Your task to perform on an android device: What's on my calendar tomorrow? Image 0: 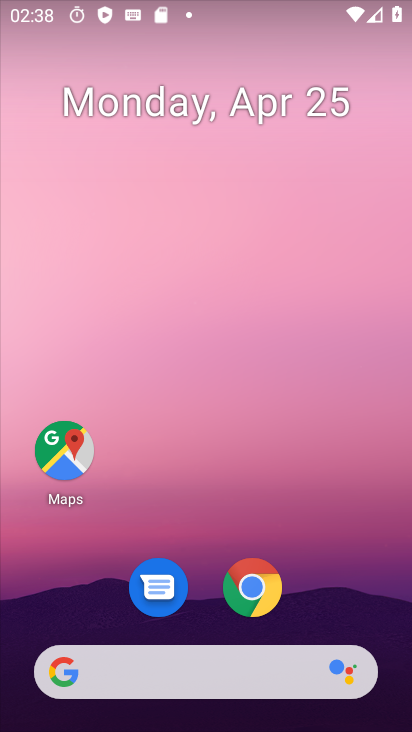
Step 0: drag from (338, 530) to (334, 106)
Your task to perform on an android device: What's on my calendar tomorrow? Image 1: 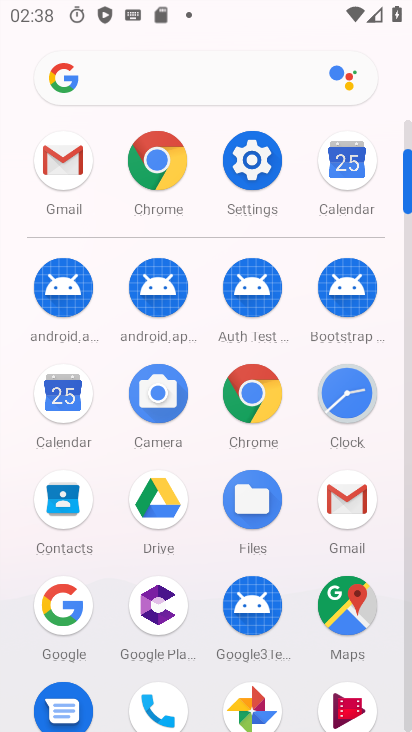
Step 1: click (59, 401)
Your task to perform on an android device: What's on my calendar tomorrow? Image 2: 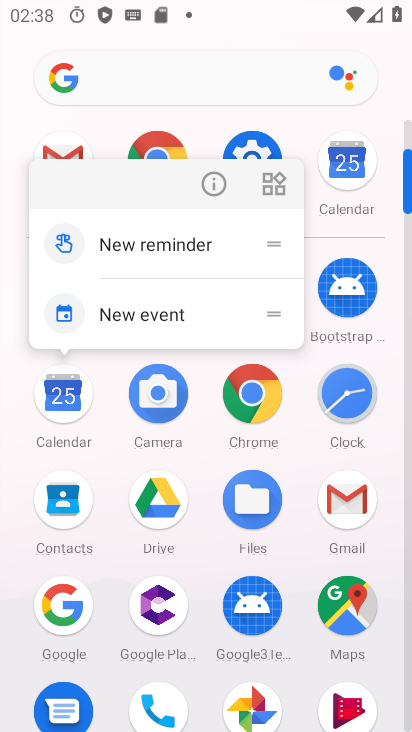
Step 2: click (61, 398)
Your task to perform on an android device: What's on my calendar tomorrow? Image 3: 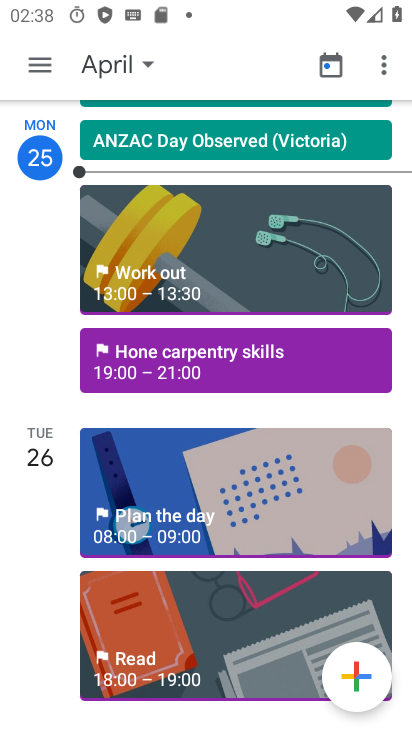
Step 3: click (386, 57)
Your task to perform on an android device: What's on my calendar tomorrow? Image 4: 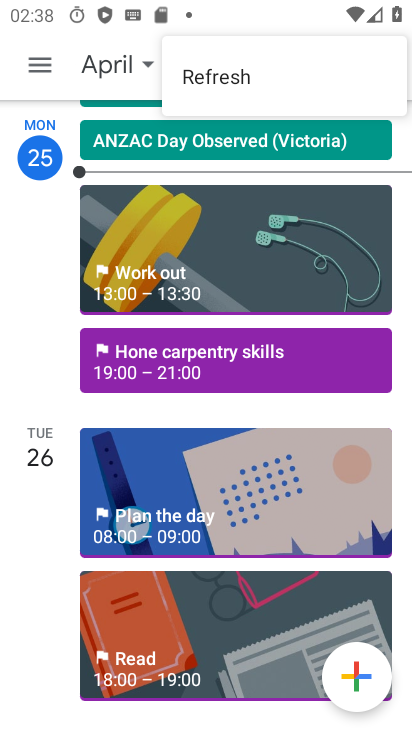
Step 4: task complete